Your task to perform on an android device: Open the calendar and show me this week's events? Image 0: 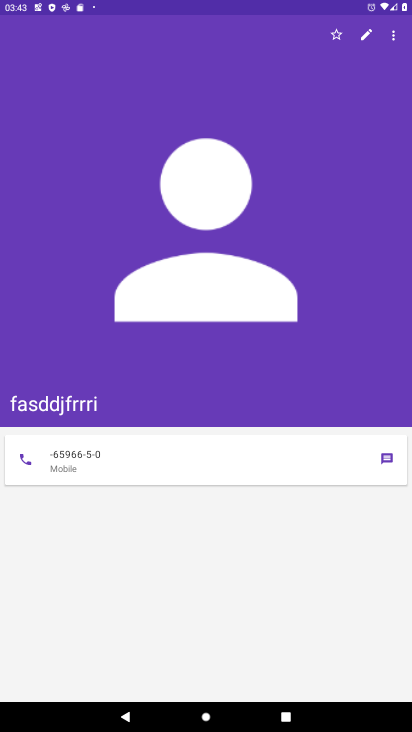
Step 0: press home button
Your task to perform on an android device: Open the calendar and show me this week's events? Image 1: 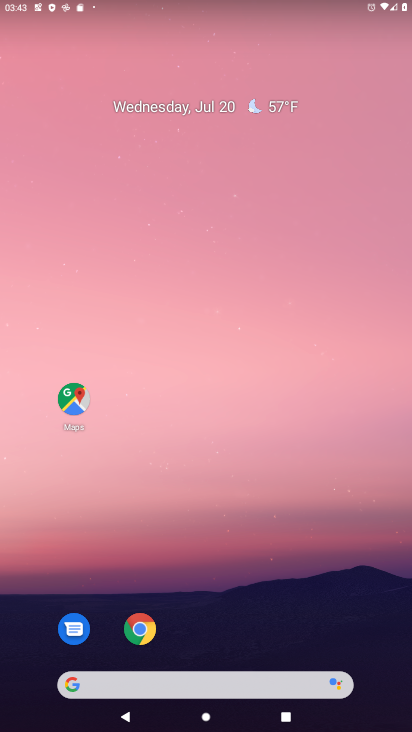
Step 1: drag from (396, 674) to (346, 46)
Your task to perform on an android device: Open the calendar and show me this week's events? Image 2: 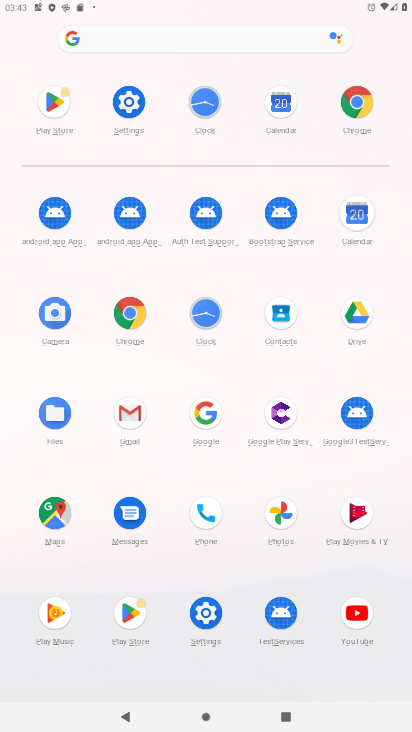
Step 2: click (358, 211)
Your task to perform on an android device: Open the calendar and show me this week's events? Image 3: 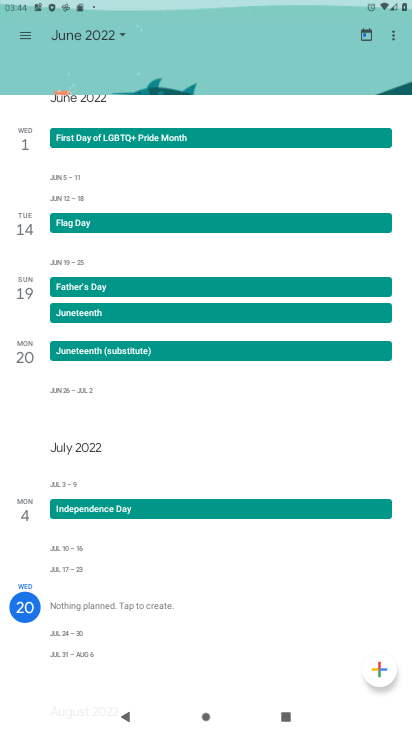
Step 3: click (28, 34)
Your task to perform on an android device: Open the calendar and show me this week's events? Image 4: 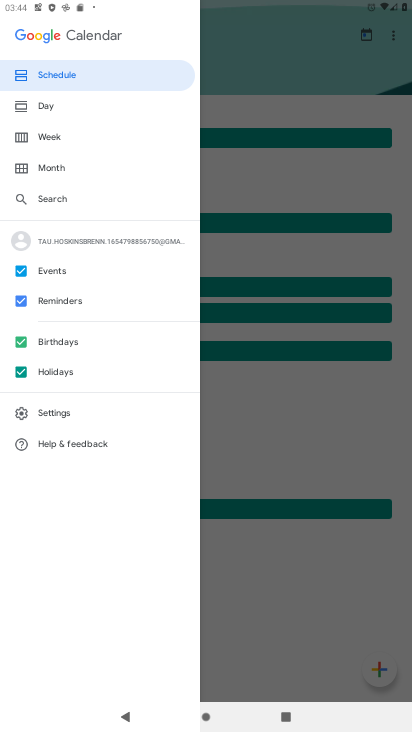
Step 4: click (51, 134)
Your task to perform on an android device: Open the calendar and show me this week's events? Image 5: 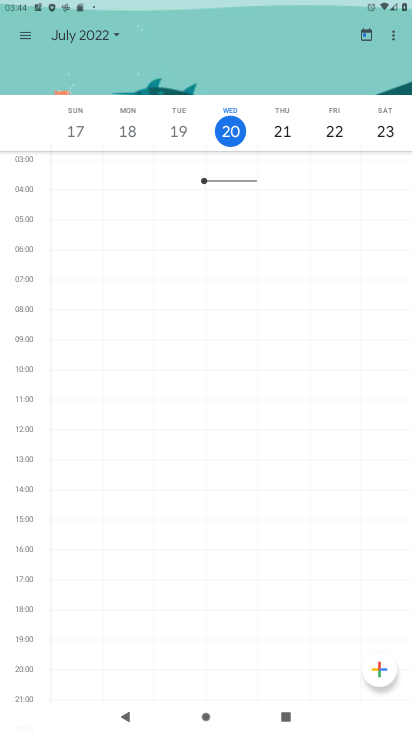
Step 5: task complete